Your task to perform on an android device: turn on airplane mode Image 0: 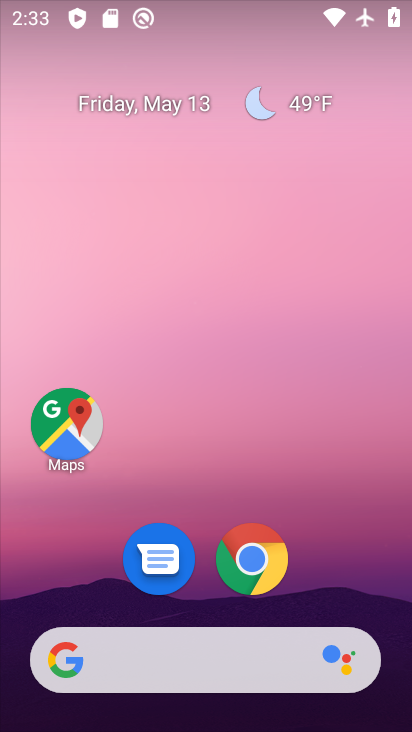
Step 0: drag from (401, 631) to (325, 44)
Your task to perform on an android device: turn on airplane mode Image 1: 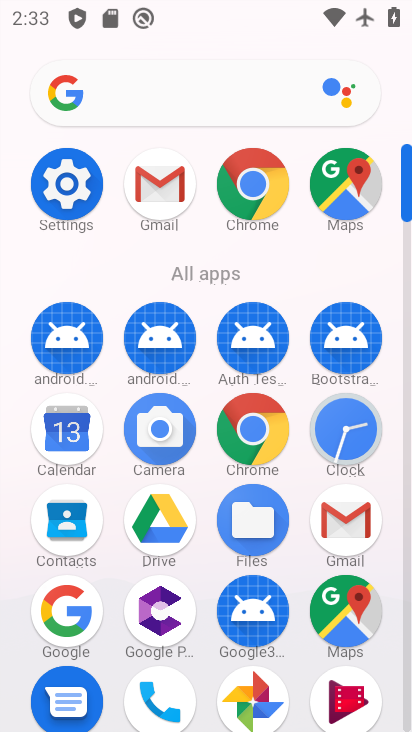
Step 1: click (409, 699)
Your task to perform on an android device: turn on airplane mode Image 2: 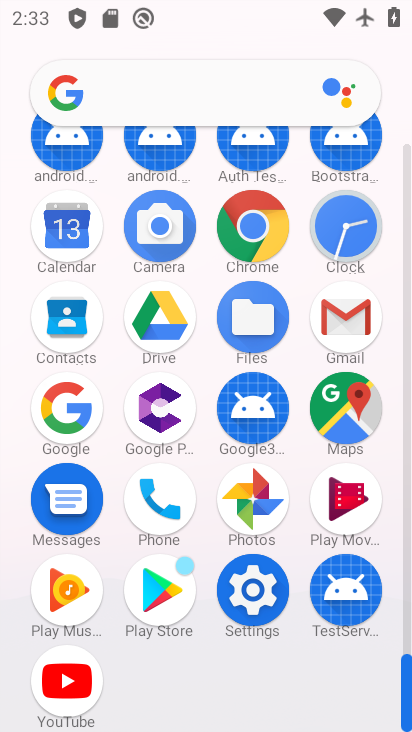
Step 2: click (255, 586)
Your task to perform on an android device: turn on airplane mode Image 3: 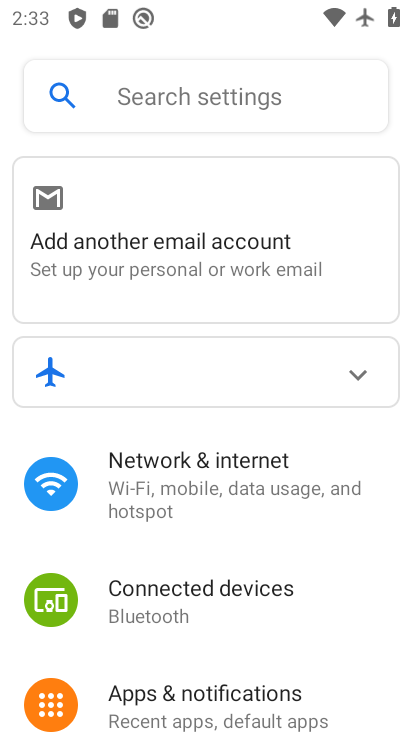
Step 3: click (166, 483)
Your task to perform on an android device: turn on airplane mode Image 4: 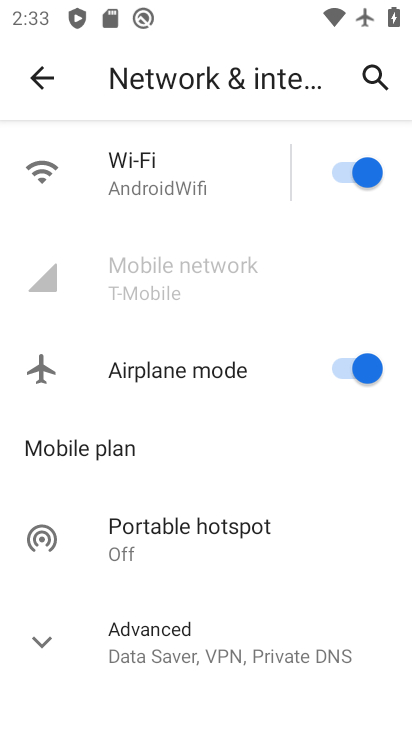
Step 4: task complete